Your task to perform on an android device: move a message to another label in the gmail app Image 0: 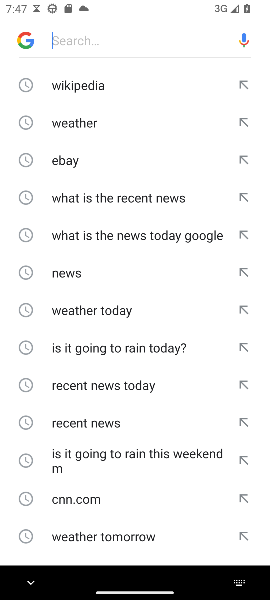
Step 0: press home button
Your task to perform on an android device: move a message to another label in the gmail app Image 1: 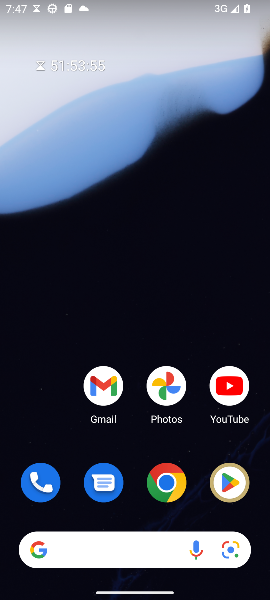
Step 1: drag from (127, 458) to (199, 42)
Your task to perform on an android device: move a message to another label in the gmail app Image 2: 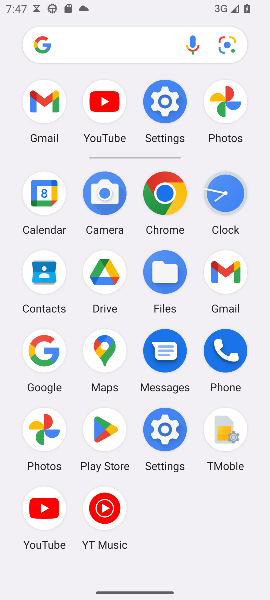
Step 2: click (52, 110)
Your task to perform on an android device: move a message to another label in the gmail app Image 3: 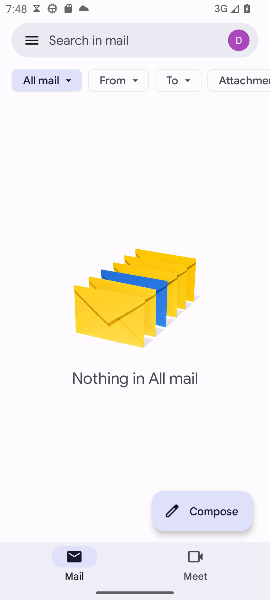
Step 3: click (21, 43)
Your task to perform on an android device: move a message to another label in the gmail app Image 4: 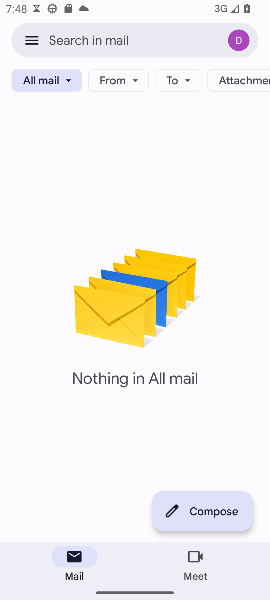
Step 4: click (72, 85)
Your task to perform on an android device: move a message to another label in the gmail app Image 5: 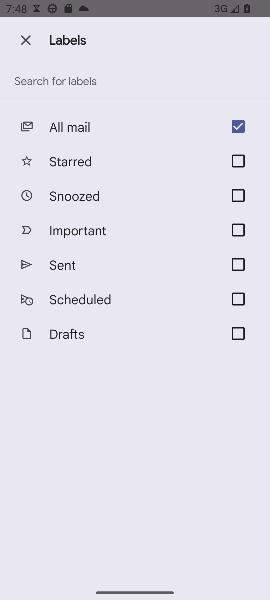
Step 5: click (240, 160)
Your task to perform on an android device: move a message to another label in the gmail app Image 6: 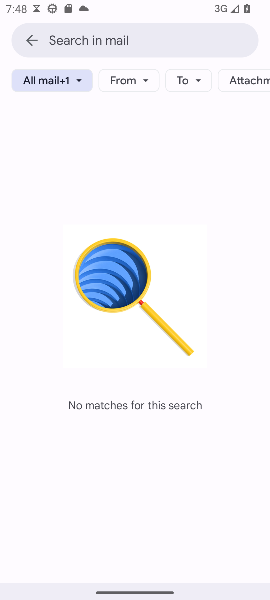
Step 6: task complete